Your task to perform on an android device: open app "Clock" Image 0: 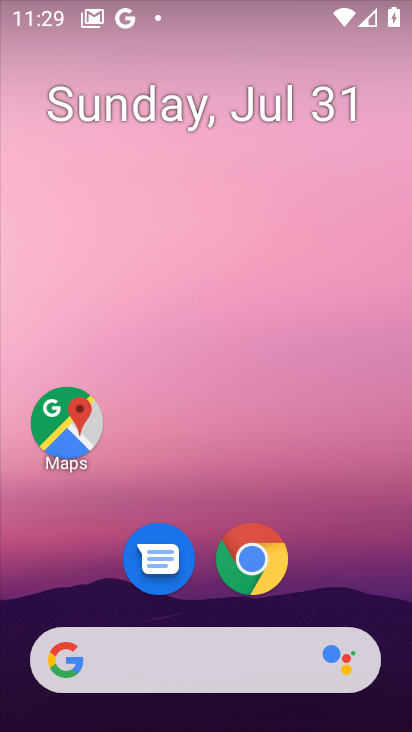
Step 0: drag from (192, 131) to (221, 12)
Your task to perform on an android device: open app "Clock" Image 1: 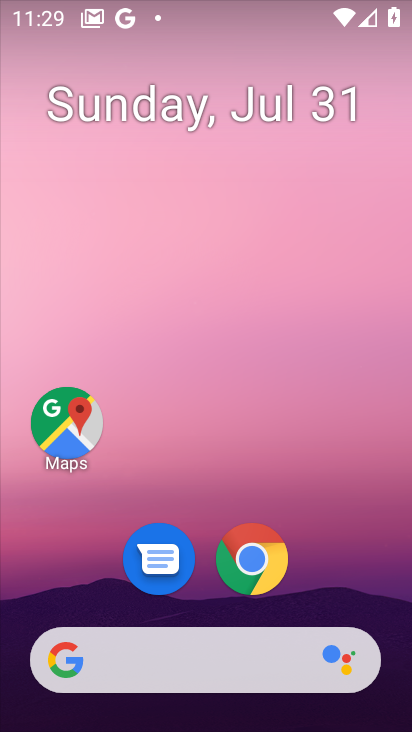
Step 1: drag from (59, 576) to (156, 29)
Your task to perform on an android device: open app "Clock" Image 2: 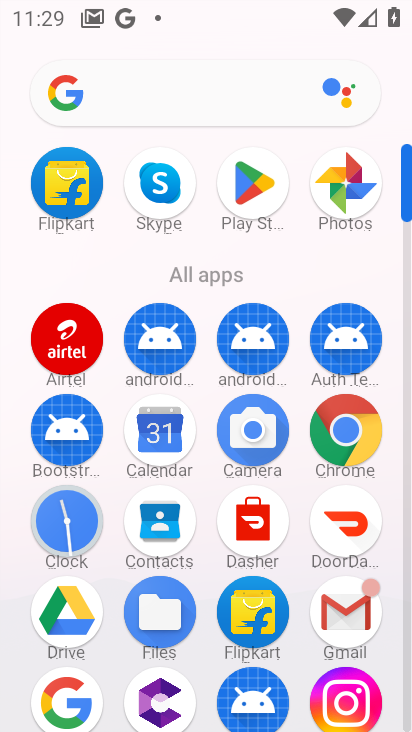
Step 2: click (53, 524)
Your task to perform on an android device: open app "Clock" Image 3: 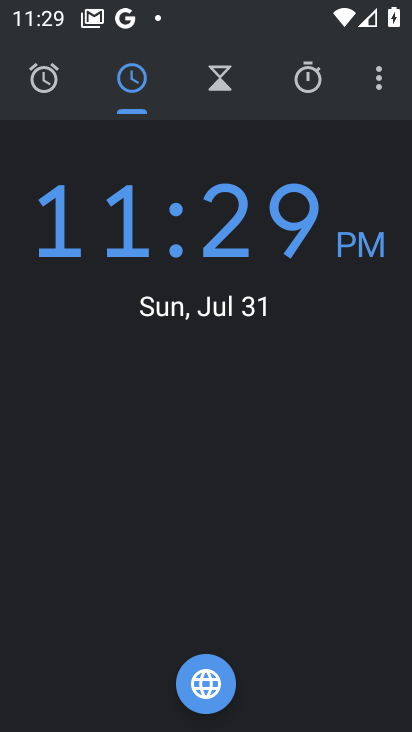
Step 3: task complete